Your task to perform on an android device: add a contact in the contacts app Image 0: 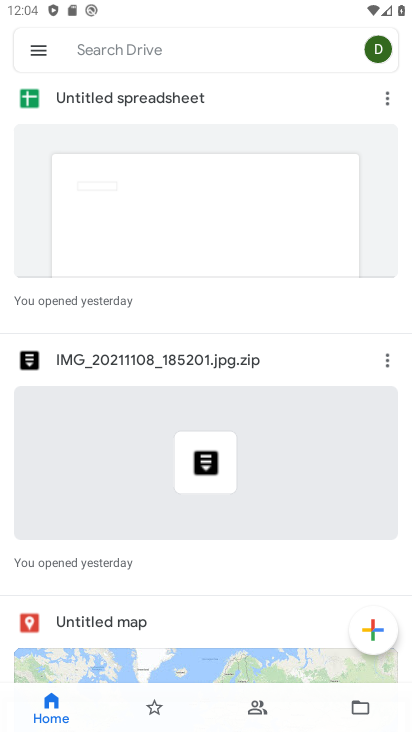
Step 0: press home button
Your task to perform on an android device: add a contact in the contacts app Image 1: 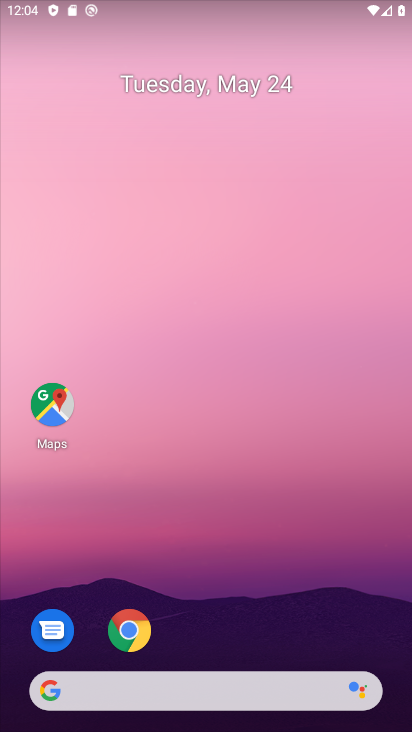
Step 1: drag from (250, 648) to (201, 116)
Your task to perform on an android device: add a contact in the contacts app Image 2: 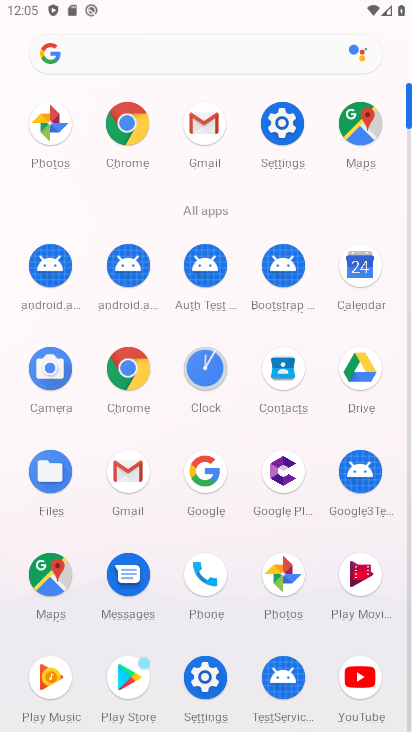
Step 2: click (292, 385)
Your task to perform on an android device: add a contact in the contacts app Image 3: 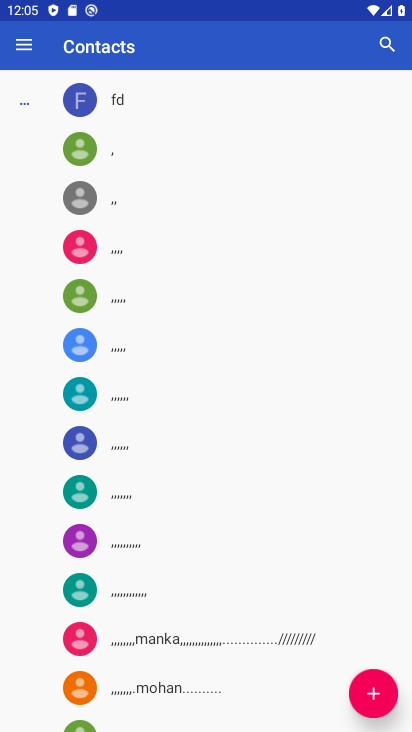
Step 3: click (377, 692)
Your task to perform on an android device: add a contact in the contacts app Image 4: 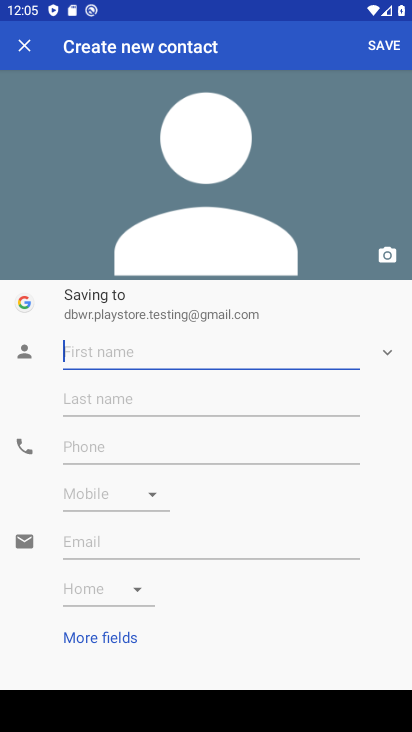
Step 4: type "fddf"
Your task to perform on an android device: add a contact in the contacts app Image 5: 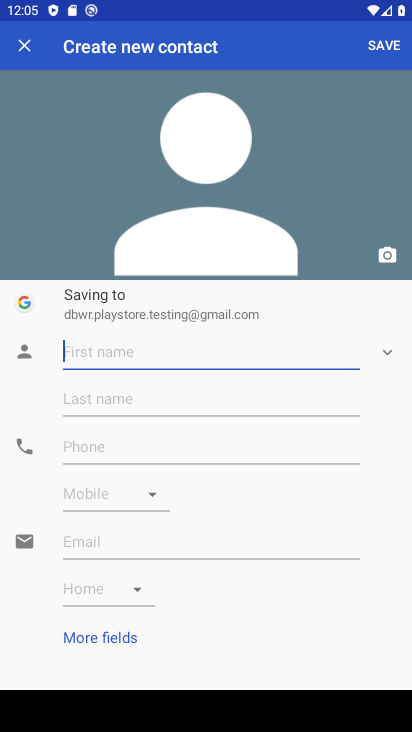
Step 5: click (154, 456)
Your task to perform on an android device: add a contact in the contacts app Image 6: 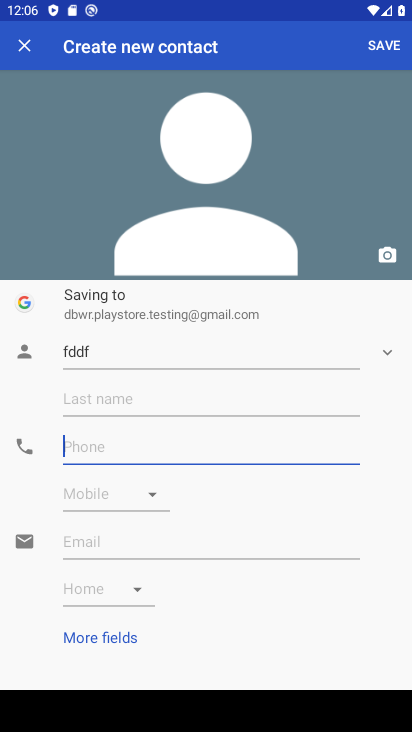
Step 6: type "6666555544"
Your task to perform on an android device: add a contact in the contacts app Image 7: 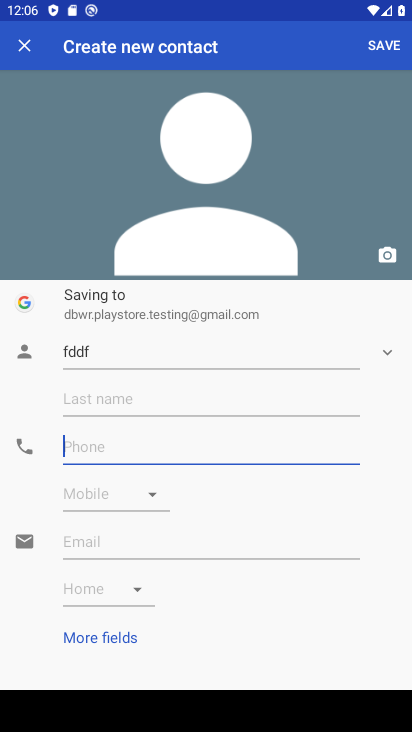
Step 7: click (381, 60)
Your task to perform on an android device: add a contact in the contacts app Image 8: 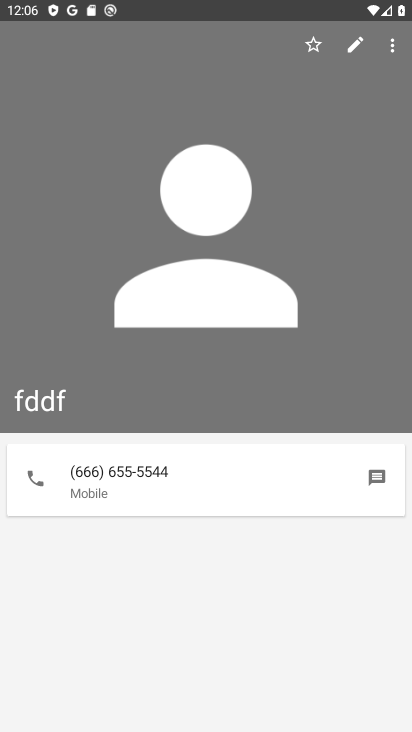
Step 8: task complete